Your task to perform on an android device: change keyboard looks Image 0: 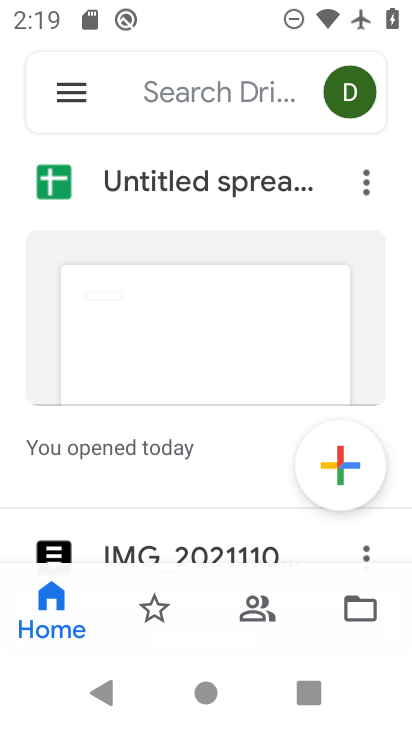
Step 0: press home button
Your task to perform on an android device: change keyboard looks Image 1: 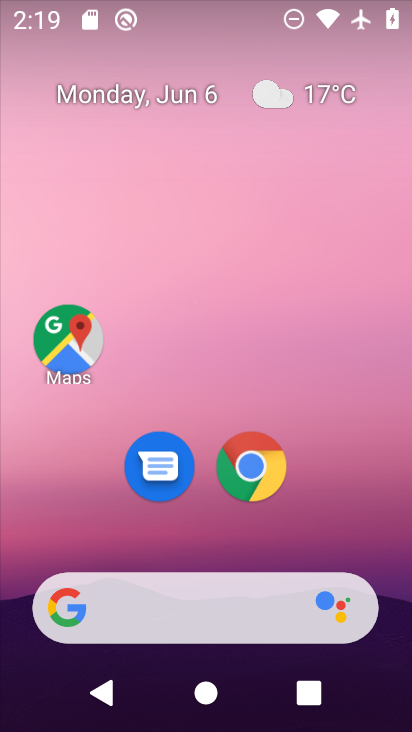
Step 1: drag from (342, 515) to (340, 125)
Your task to perform on an android device: change keyboard looks Image 2: 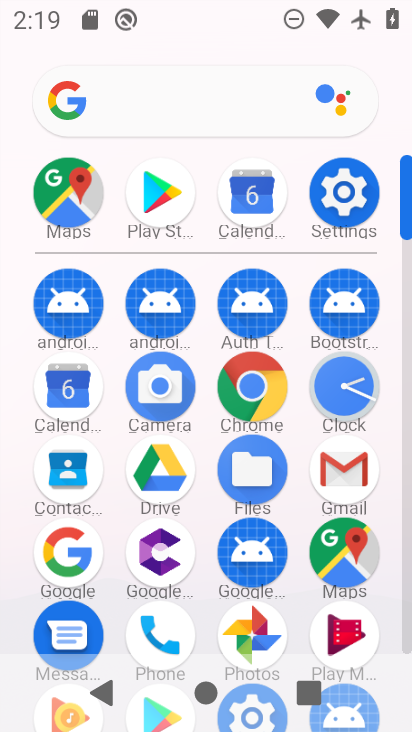
Step 2: click (350, 200)
Your task to perform on an android device: change keyboard looks Image 3: 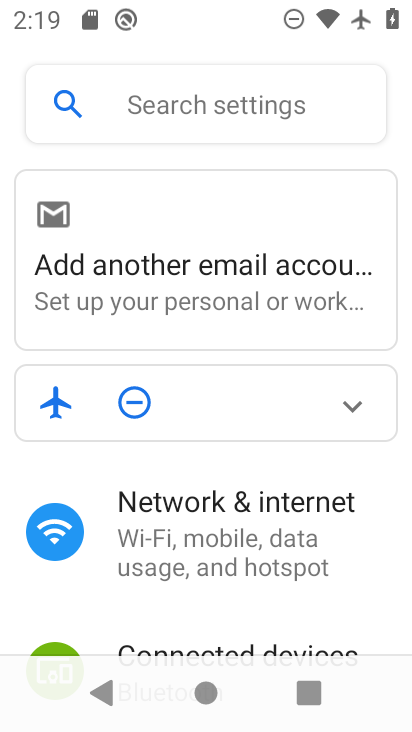
Step 3: drag from (347, 595) to (346, 318)
Your task to perform on an android device: change keyboard looks Image 4: 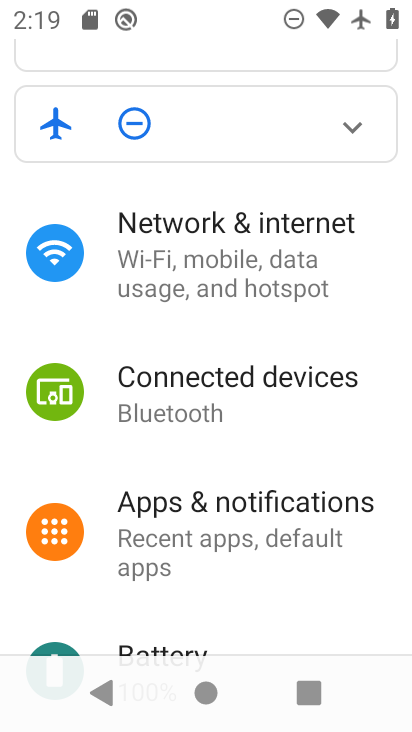
Step 4: drag from (315, 591) to (319, 322)
Your task to perform on an android device: change keyboard looks Image 5: 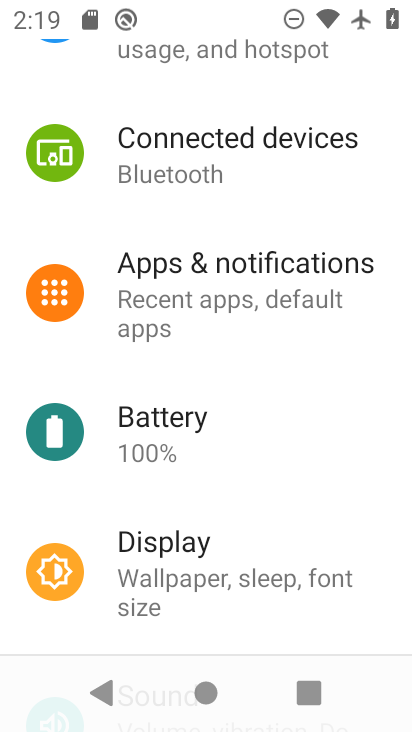
Step 5: drag from (326, 480) to (319, 199)
Your task to perform on an android device: change keyboard looks Image 6: 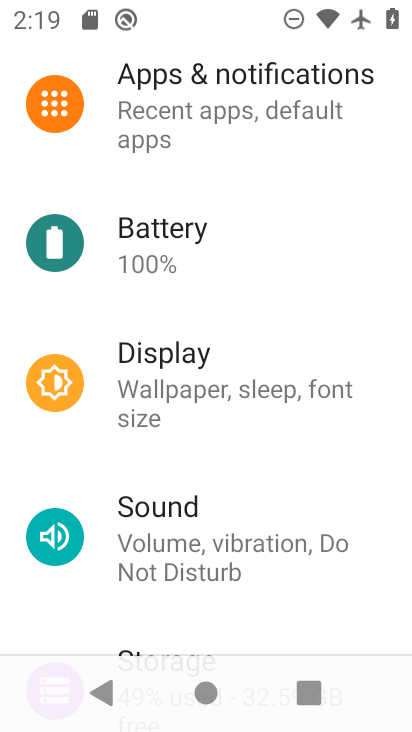
Step 6: drag from (305, 474) to (321, 226)
Your task to perform on an android device: change keyboard looks Image 7: 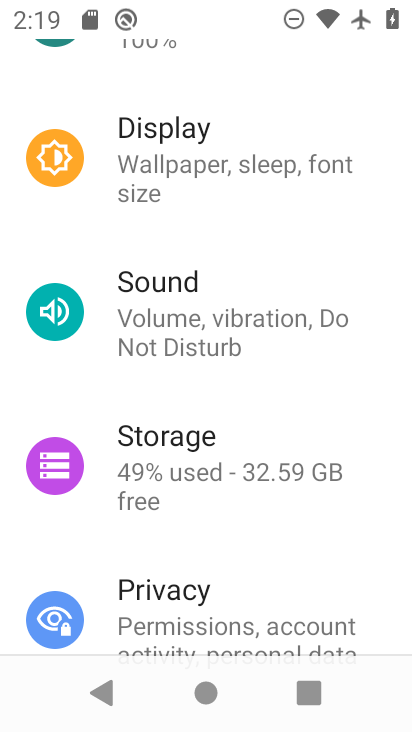
Step 7: drag from (322, 564) to (336, 289)
Your task to perform on an android device: change keyboard looks Image 8: 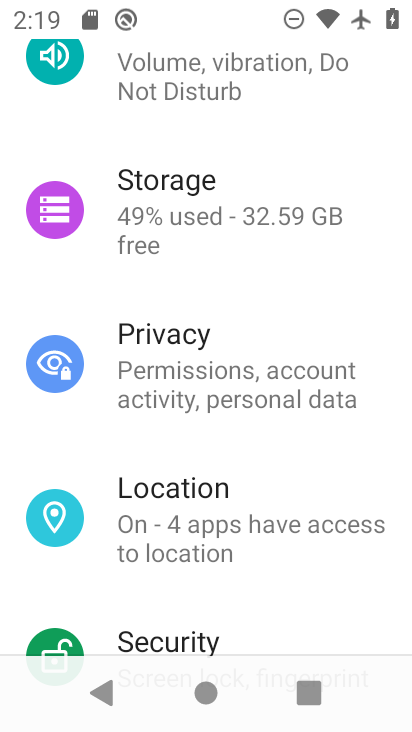
Step 8: drag from (332, 454) to (367, 229)
Your task to perform on an android device: change keyboard looks Image 9: 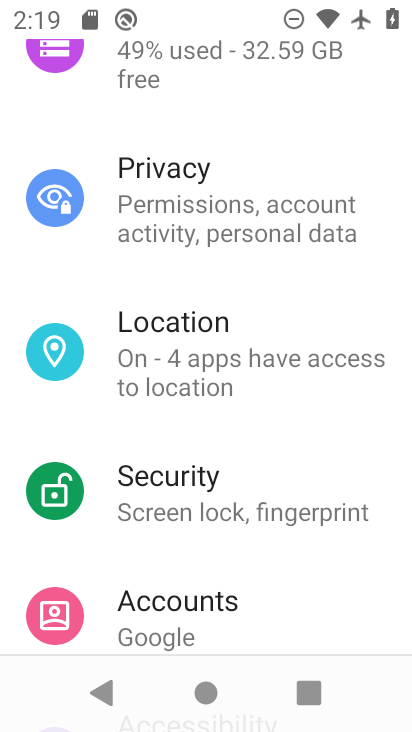
Step 9: drag from (303, 578) to (338, 315)
Your task to perform on an android device: change keyboard looks Image 10: 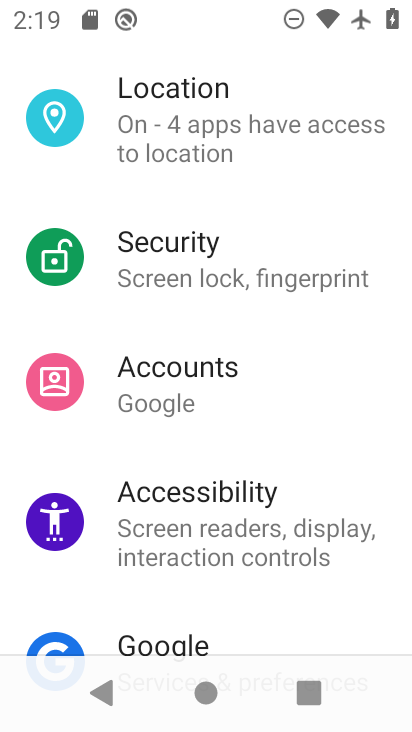
Step 10: click (300, 601)
Your task to perform on an android device: change keyboard looks Image 11: 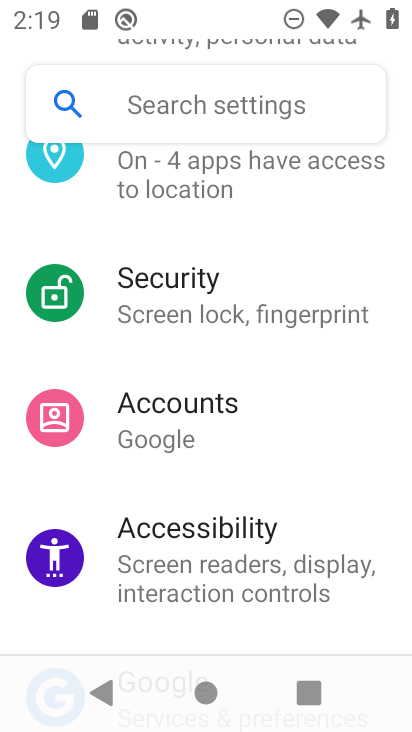
Step 11: drag from (362, 473) to (302, 722)
Your task to perform on an android device: change keyboard looks Image 12: 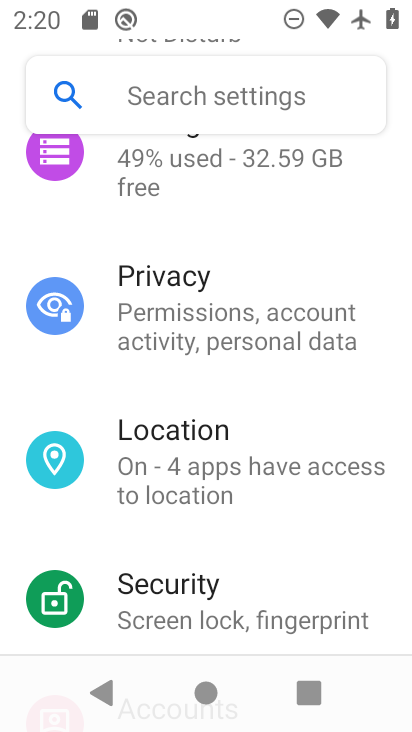
Step 12: drag from (299, 558) to (364, 18)
Your task to perform on an android device: change keyboard looks Image 13: 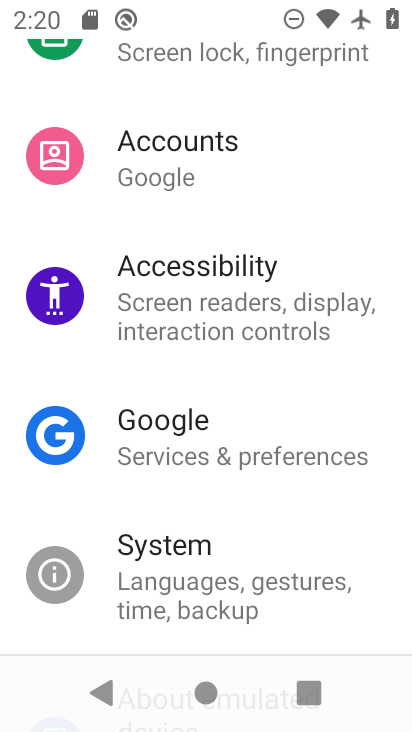
Step 13: click (225, 552)
Your task to perform on an android device: change keyboard looks Image 14: 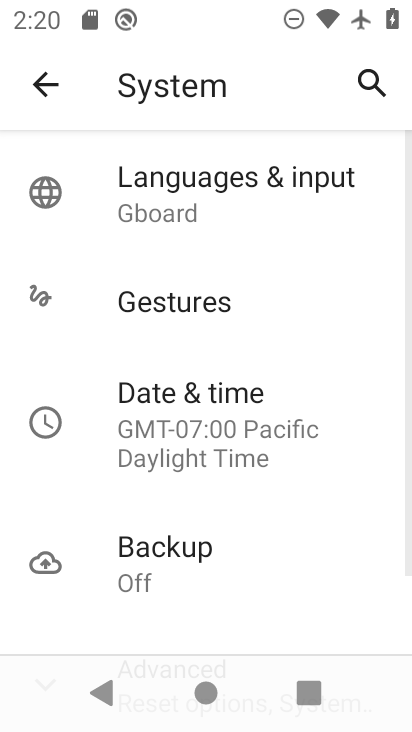
Step 14: click (214, 208)
Your task to perform on an android device: change keyboard looks Image 15: 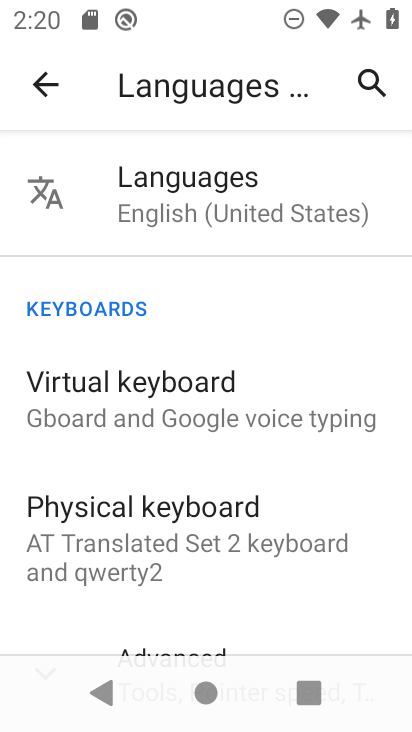
Step 15: click (141, 407)
Your task to perform on an android device: change keyboard looks Image 16: 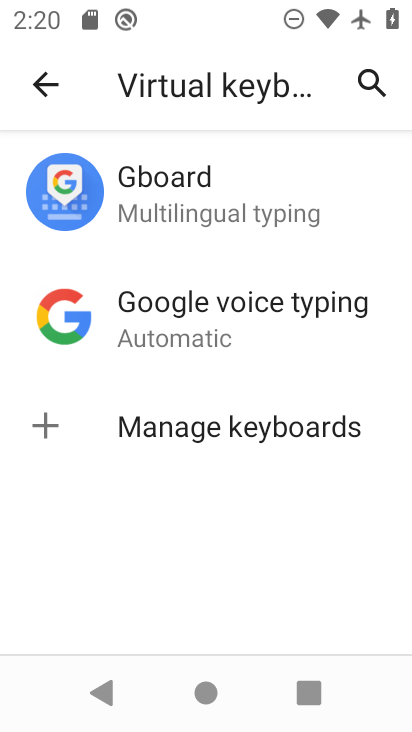
Step 16: click (216, 191)
Your task to perform on an android device: change keyboard looks Image 17: 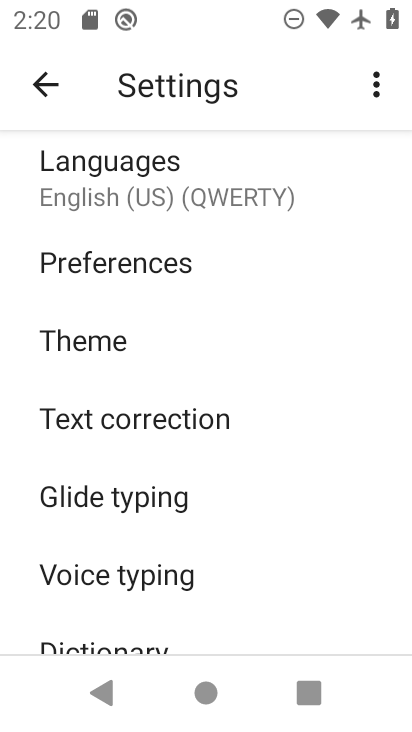
Step 17: click (107, 342)
Your task to perform on an android device: change keyboard looks Image 18: 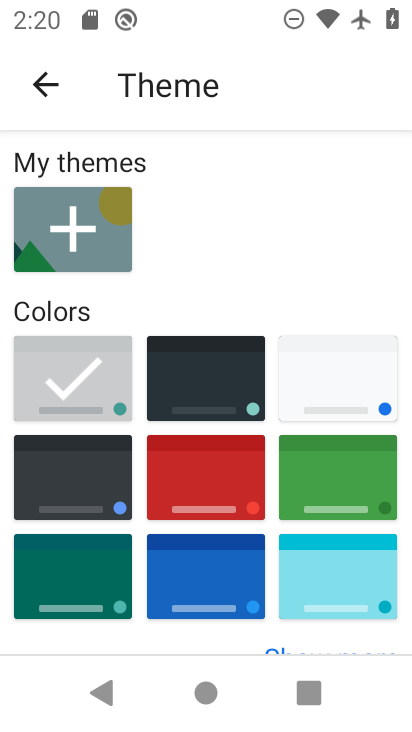
Step 18: click (221, 585)
Your task to perform on an android device: change keyboard looks Image 19: 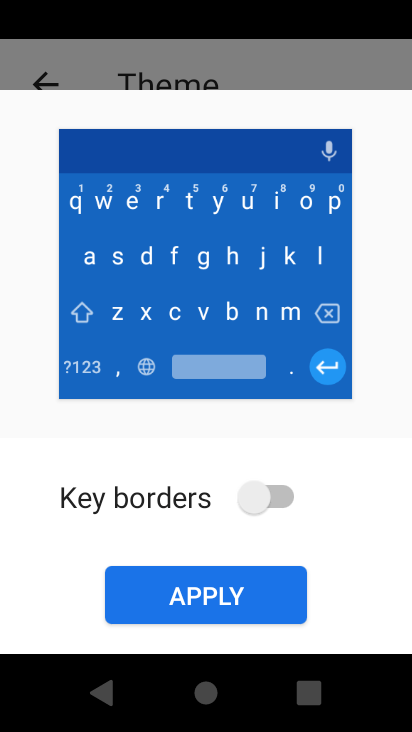
Step 19: click (228, 587)
Your task to perform on an android device: change keyboard looks Image 20: 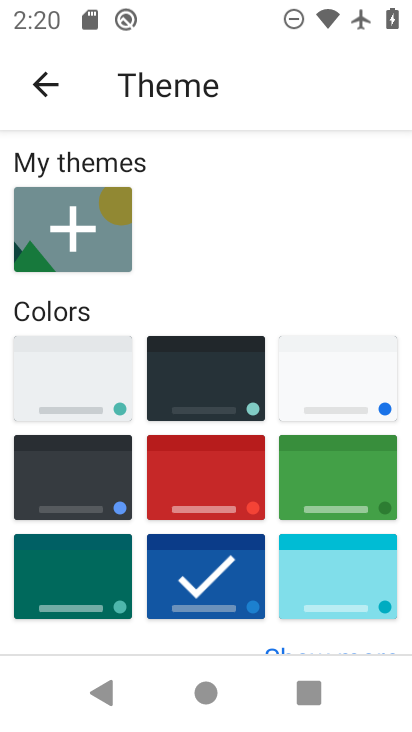
Step 20: click (87, 589)
Your task to perform on an android device: change keyboard looks Image 21: 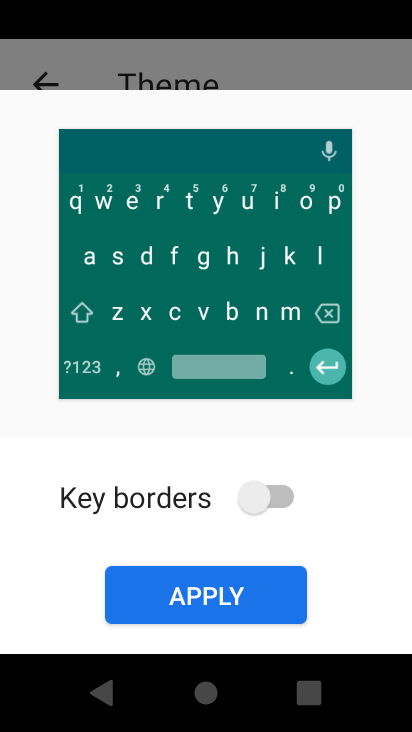
Step 21: click (246, 597)
Your task to perform on an android device: change keyboard looks Image 22: 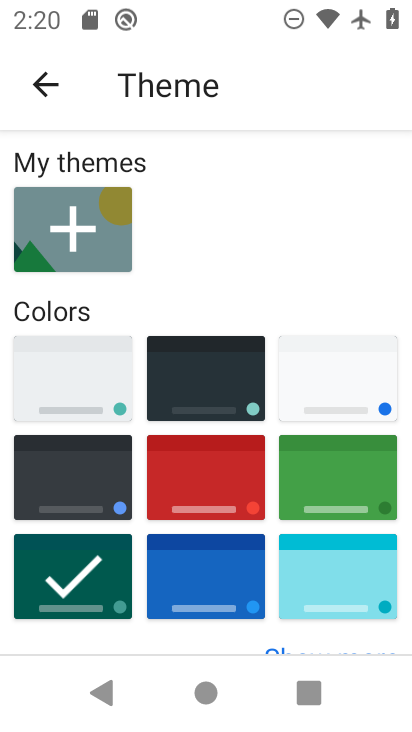
Step 22: task complete